Your task to perform on an android device: Check the weather Image 0: 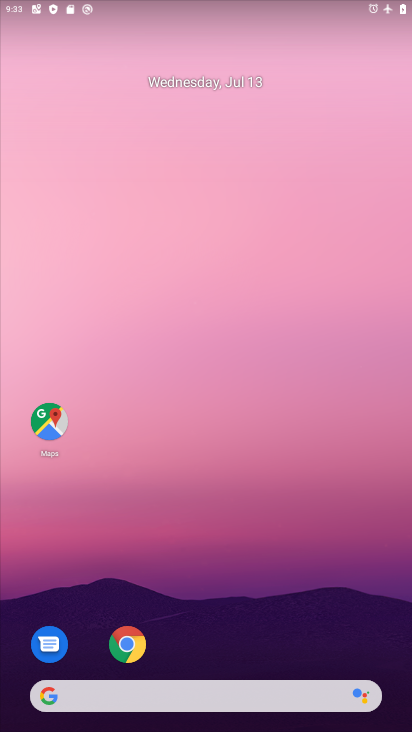
Step 0: drag from (230, 659) to (237, 94)
Your task to perform on an android device: Check the weather Image 1: 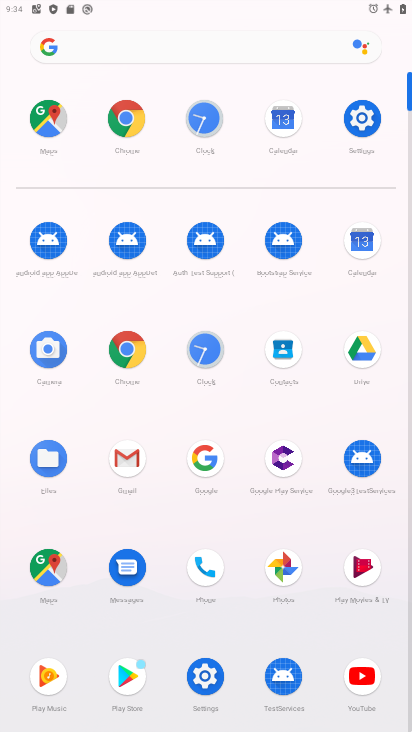
Step 1: click (208, 464)
Your task to perform on an android device: Check the weather Image 2: 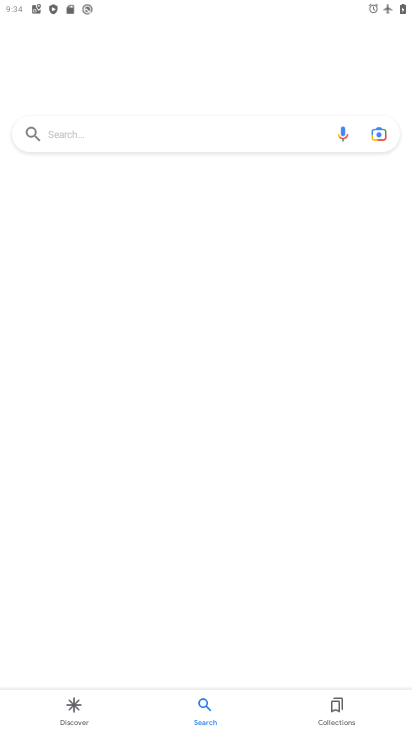
Step 2: click (115, 140)
Your task to perform on an android device: Check the weather Image 3: 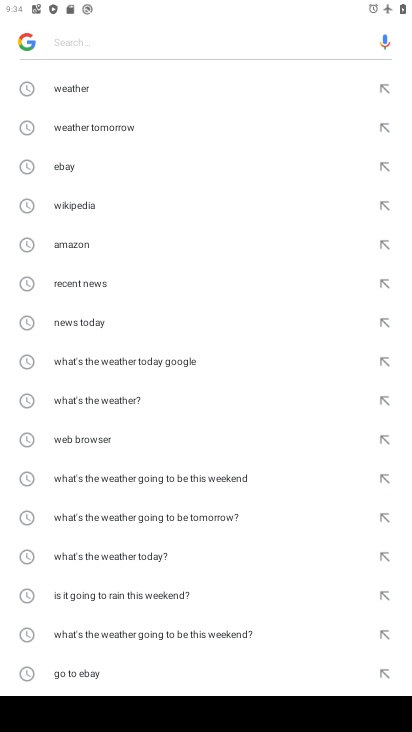
Step 3: click (71, 92)
Your task to perform on an android device: Check the weather Image 4: 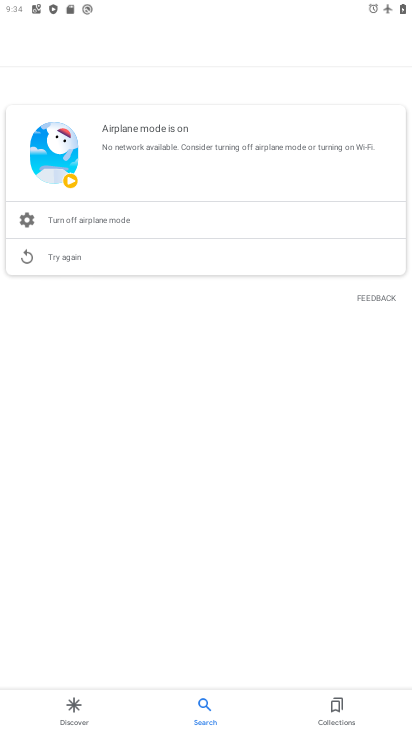
Step 4: task complete